Your task to perform on an android device: Set the phone to "Do not disturb". Image 0: 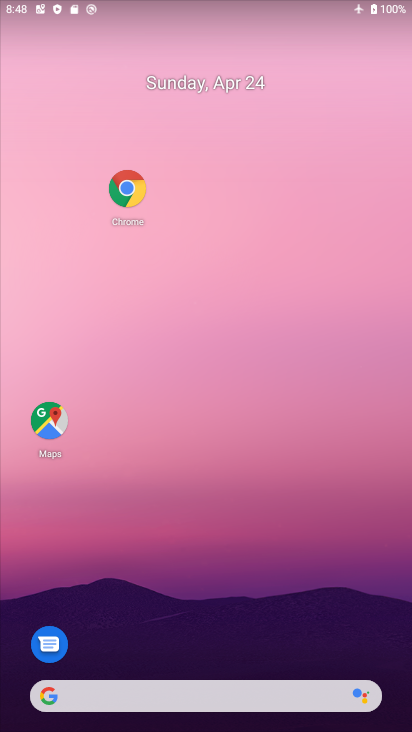
Step 0: drag from (242, 495) to (239, 235)
Your task to perform on an android device: Set the phone to "Do not disturb". Image 1: 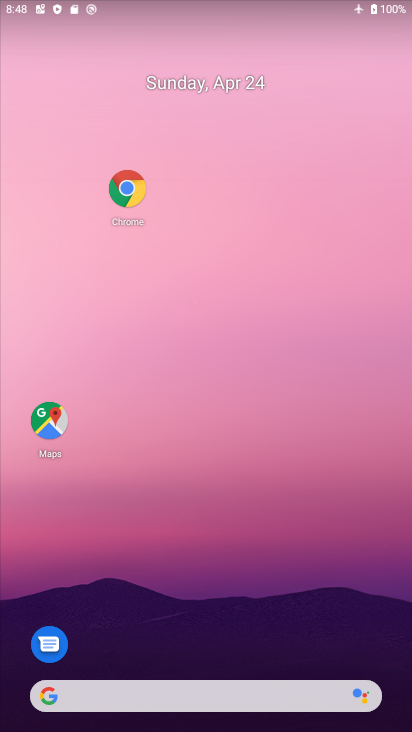
Step 1: drag from (191, 556) to (191, 275)
Your task to perform on an android device: Set the phone to "Do not disturb". Image 2: 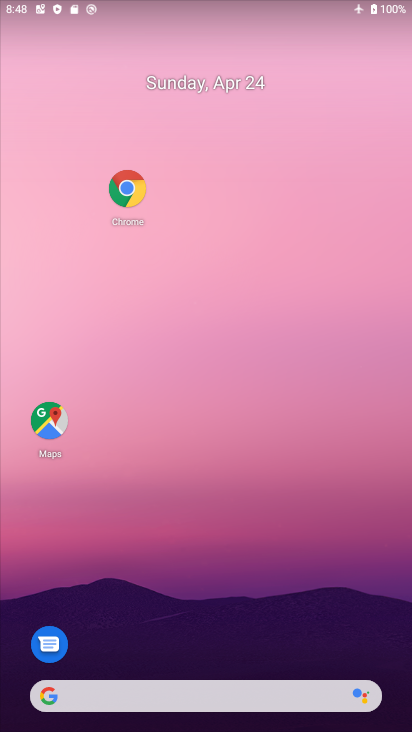
Step 2: drag from (204, 642) to (278, 100)
Your task to perform on an android device: Set the phone to "Do not disturb". Image 3: 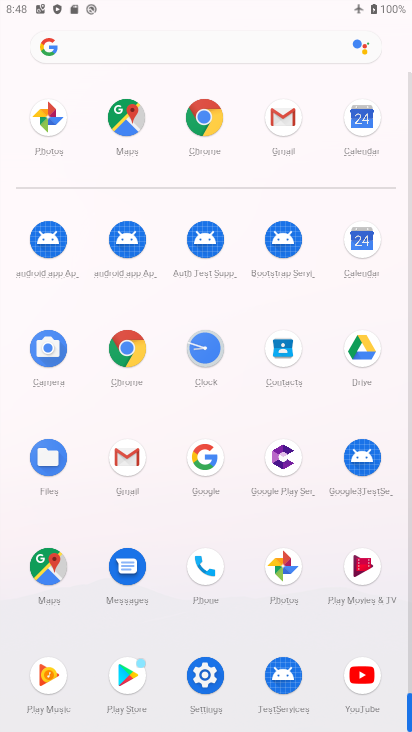
Step 3: click (197, 674)
Your task to perform on an android device: Set the phone to "Do not disturb". Image 4: 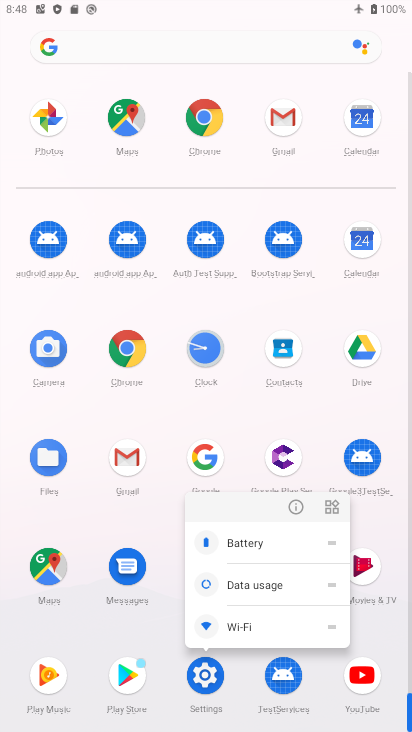
Step 4: click (288, 502)
Your task to perform on an android device: Set the phone to "Do not disturb". Image 5: 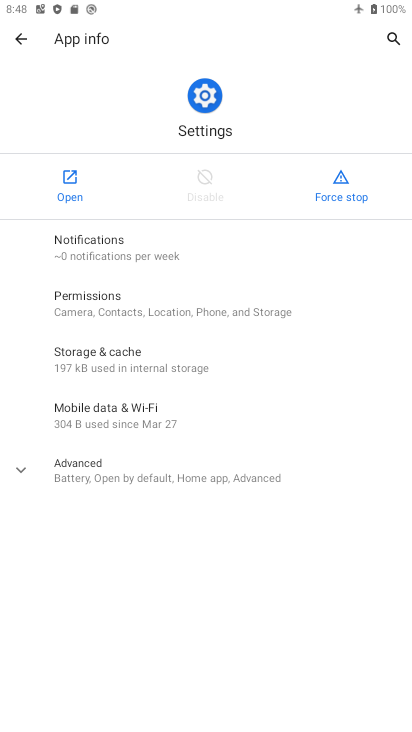
Step 5: click (327, 515)
Your task to perform on an android device: Set the phone to "Do not disturb". Image 6: 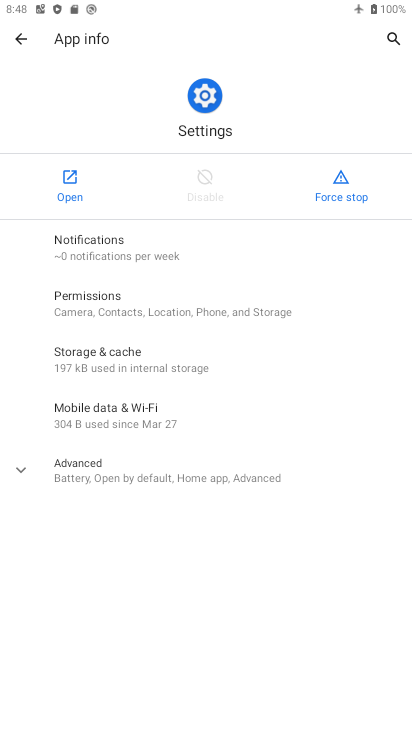
Step 6: click (60, 188)
Your task to perform on an android device: Set the phone to "Do not disturb". Image 7: 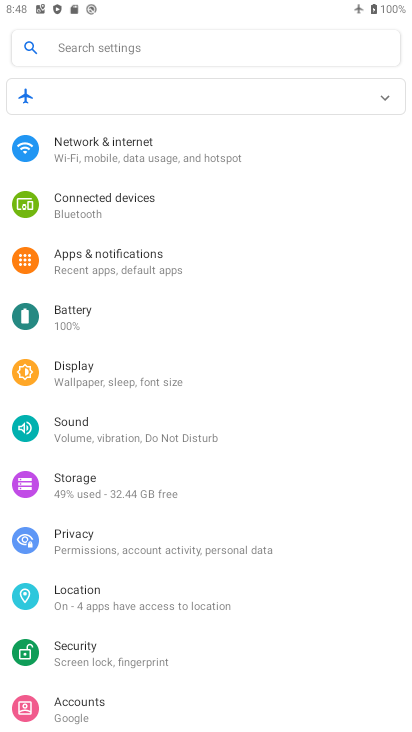
Step 7: click (132, 260)
Your task to perform on an android device: Set the phone to "Do not disturb". Image 8: 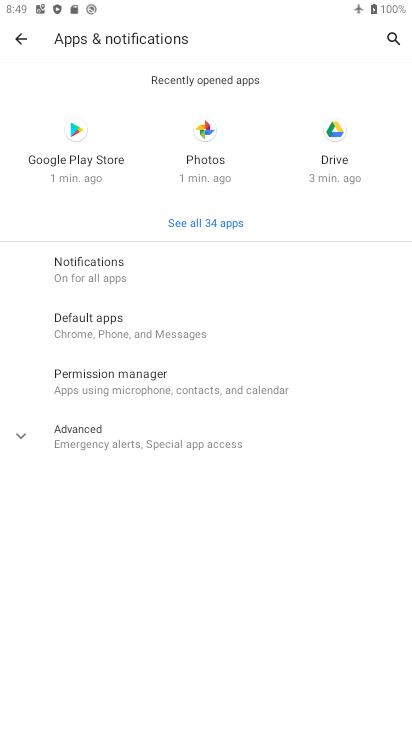
Step 8: click (161, 267)
Your task to perform on an android device: Set the phone to "Do not disturb". Image 9: 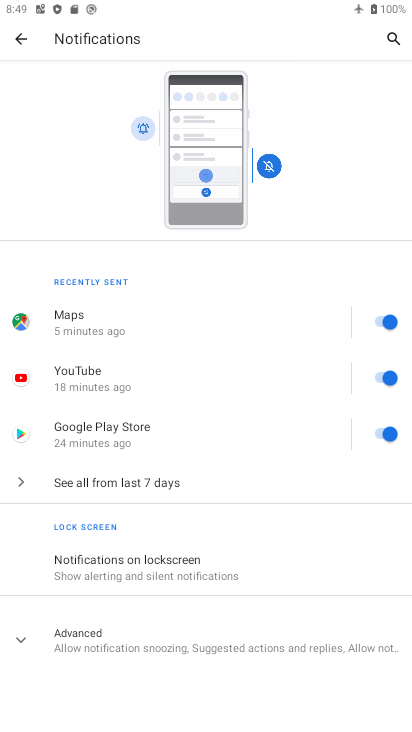
Step 9: drag from (143, 623) to (246, 305)
Your task to perform on an android device: Set the phone to "Do not disturb". Image 10: 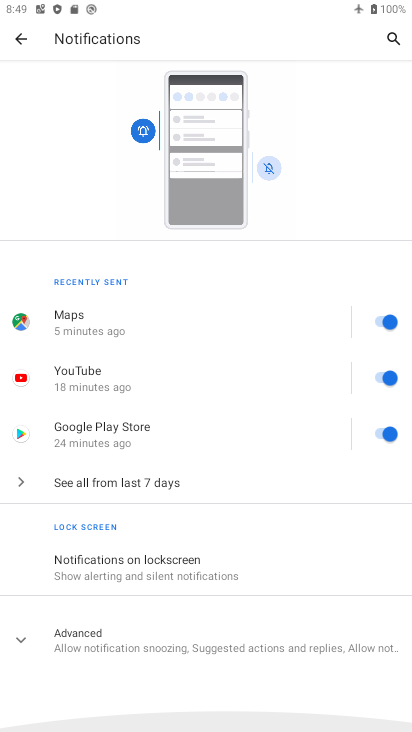
Step 10: click (142, 627)
Your task to perform on an android device: Set the phone to "Do not disturb". Image 11: 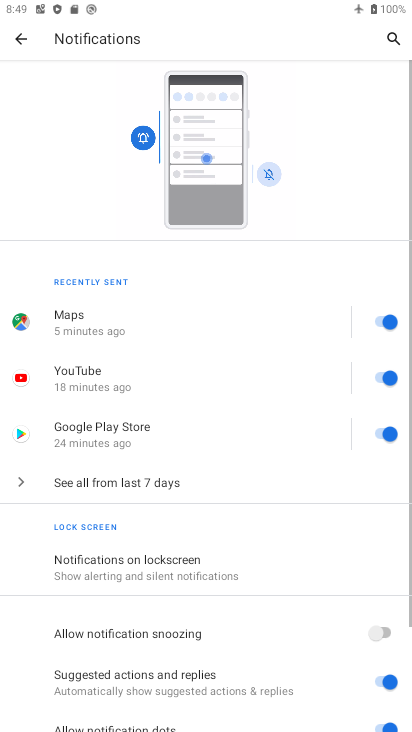
Step 11: drag from (143, 621) to (278, 47)
Your task to perform on an android device: Set the phone to "Do not disturb". Image 12: 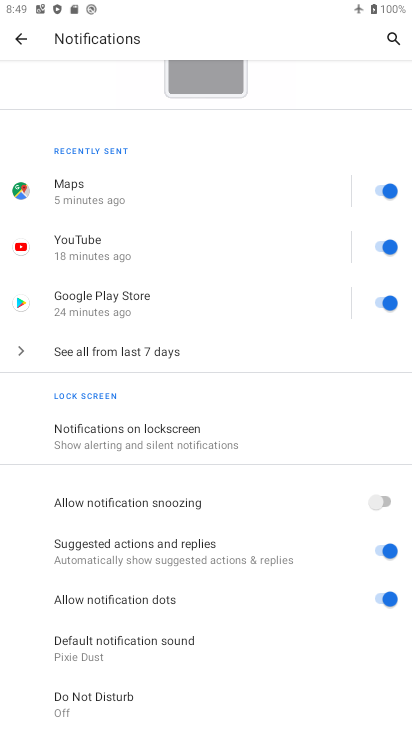
Step 12: click (140, 701)
Your task to perform on an android device: Set the phone to "Do not disturb". Image 13: 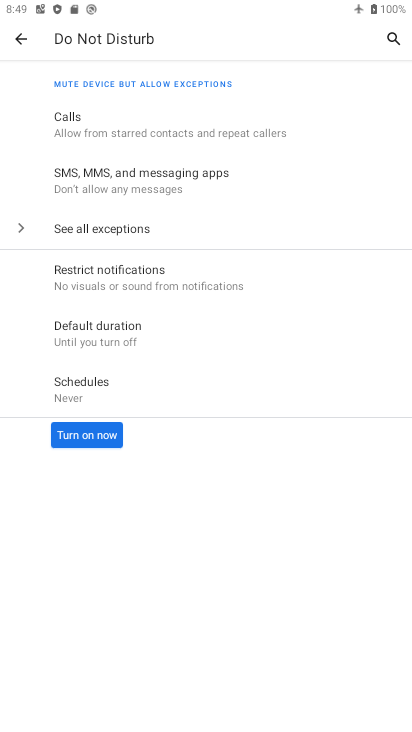
Step 13: click (85, 440)
Your task to perform on an android device: Set the phone to "Do not disturb". Image 14: 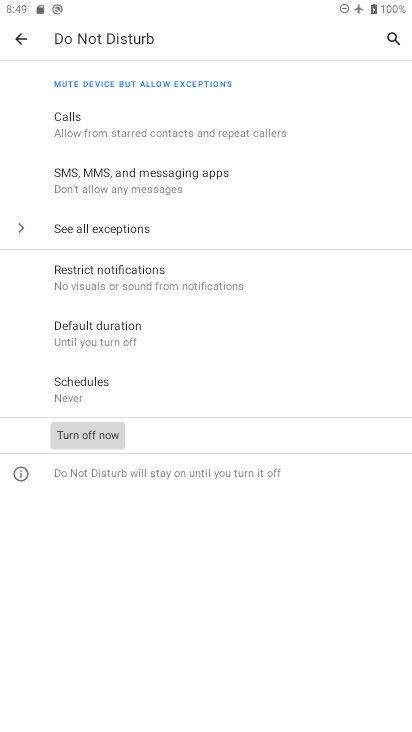
Step 14: task complete